Your task to perform on an android device: toggle wifi Image 0: 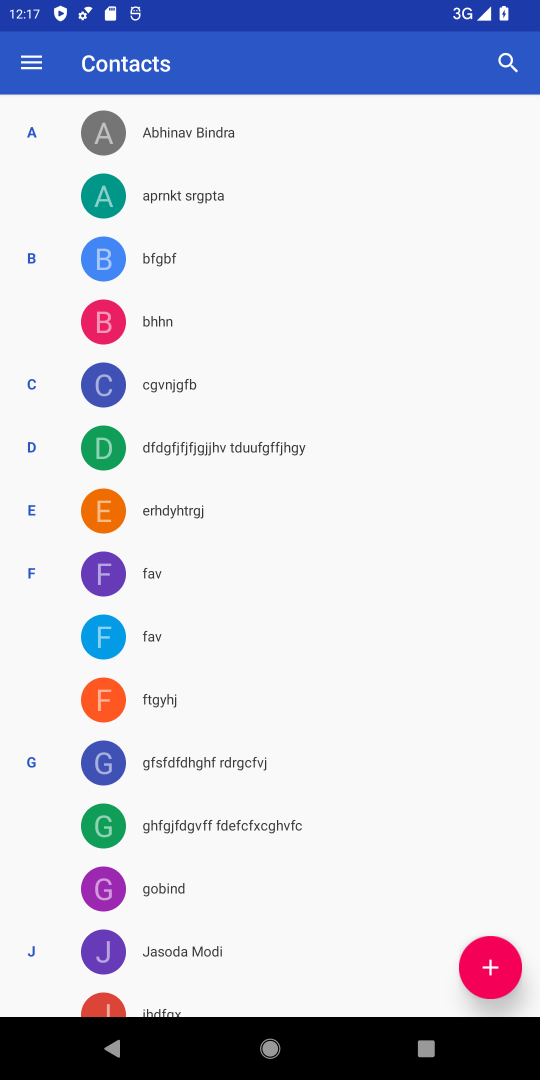
Step 0: drag from (236, 769) to (229, 335)
Your task to perform on an android device: toggle wifi Image 1: 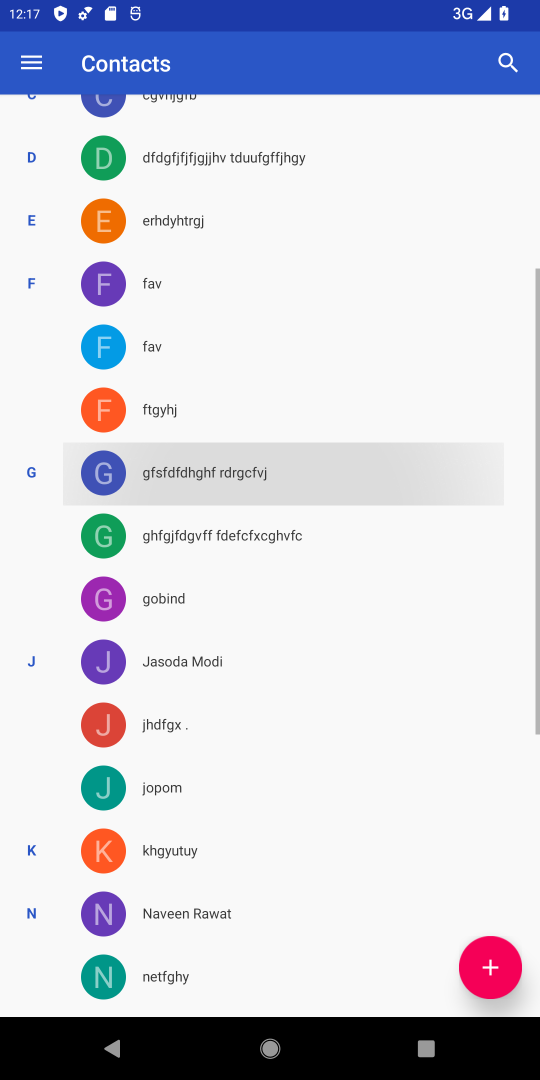
Step 1: drag from (267, 292) to (226, 1000)
Your task to perform on an android device: toggle wifi Image 2: 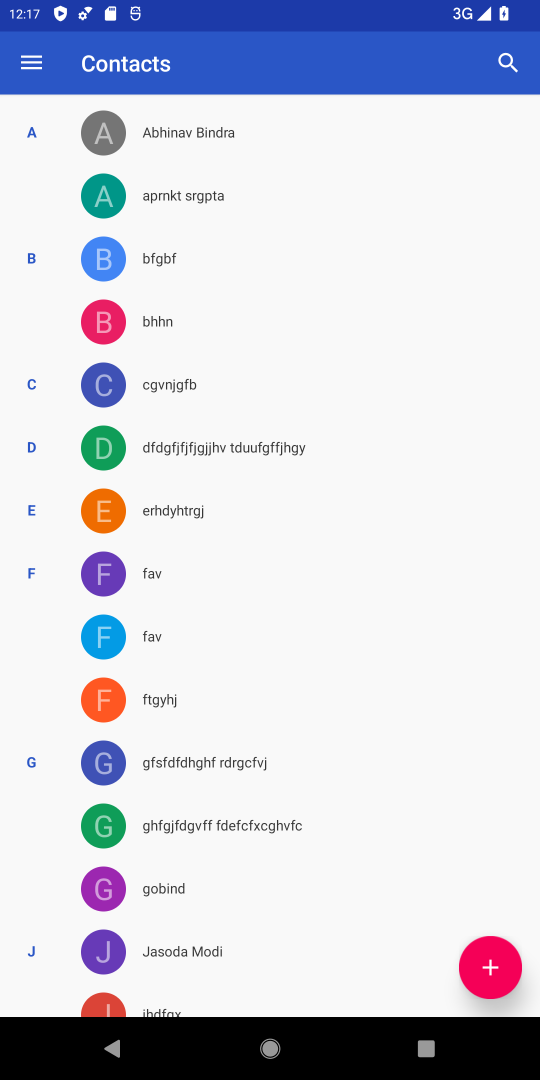
Step 2: drag from (142, 828) to (240, 166)
Your task to perform on an android device: toggle wifi Image 3: 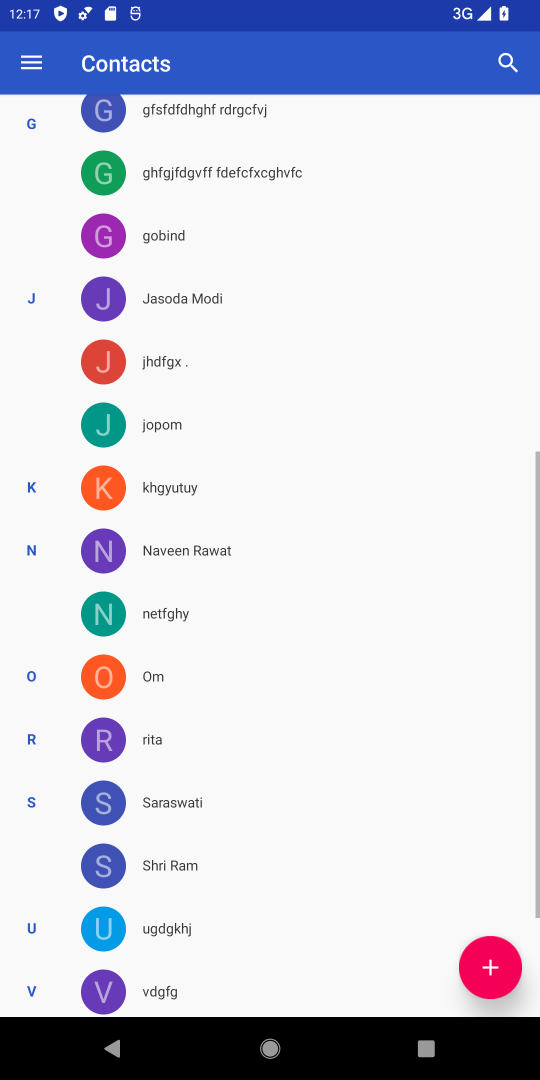
Step 3: drag from (230, 232) to (298, 831)
Your task to perform on an android device: toggle wifi Image 4: 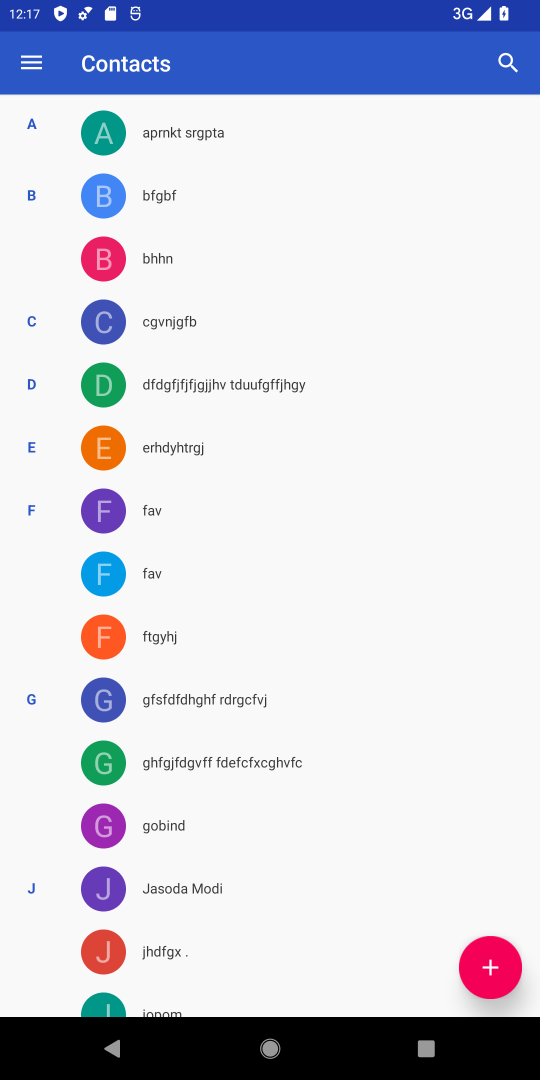
Step 4: drag from (260, 344) to (310, 1070)
Your task to perform on an android device: toggle wifi Image 5: 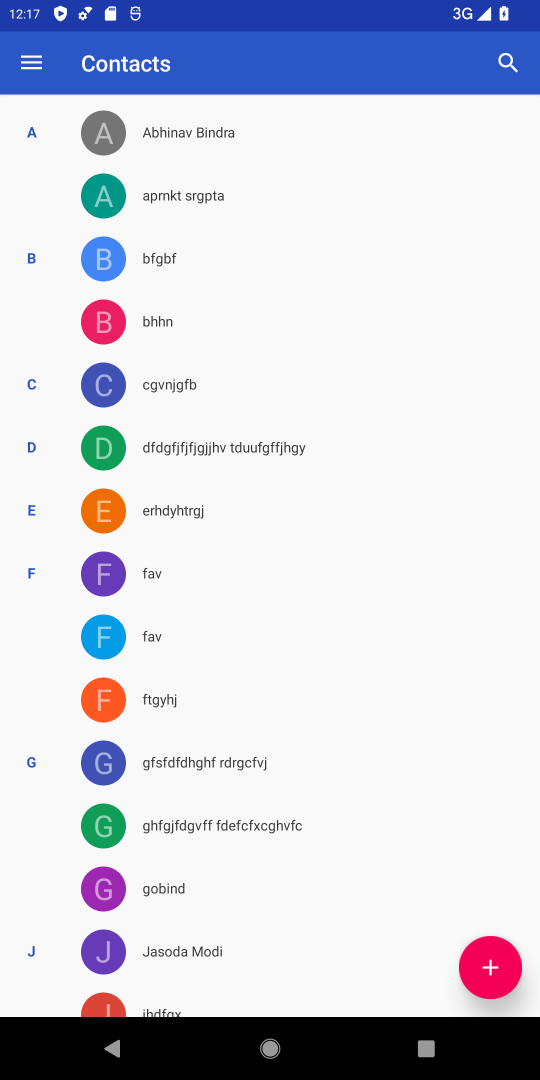
Step 5: drag from (171, 471) to (304, 1078)
Your task to perform on an android device: toggle wifi Image 6: 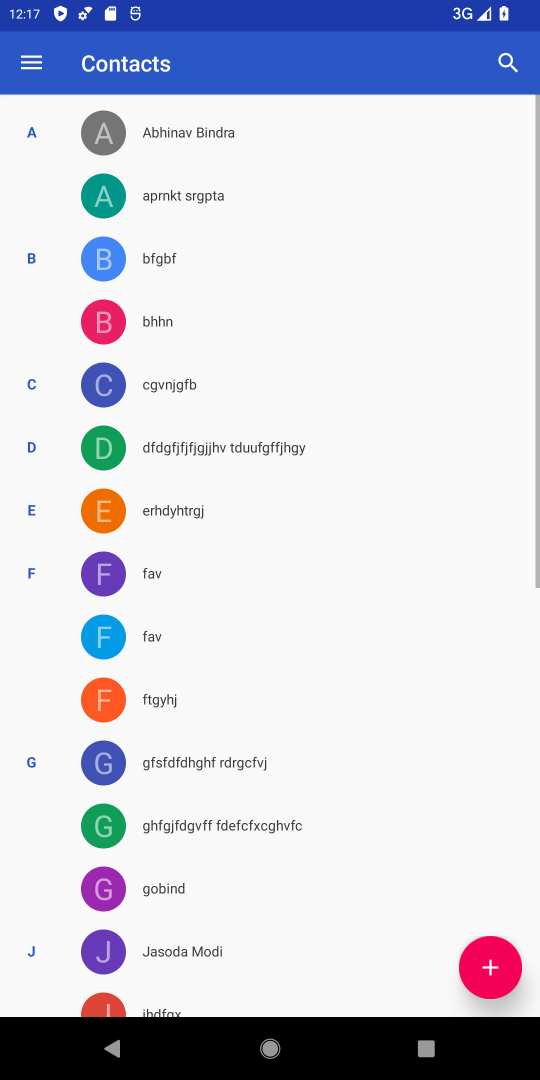
Step 6: drag from (294, 375) to (320, 905)
Your task to perform on an android device: toggle wifi Image 7: 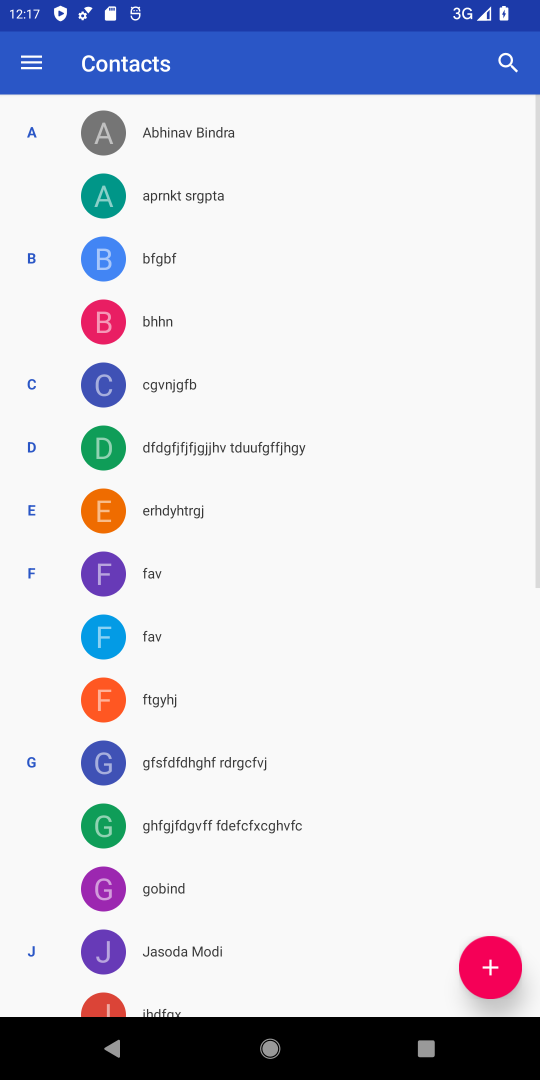
Step 7: press home button
Your task to perform on an android device: toggle wifi Image 8: 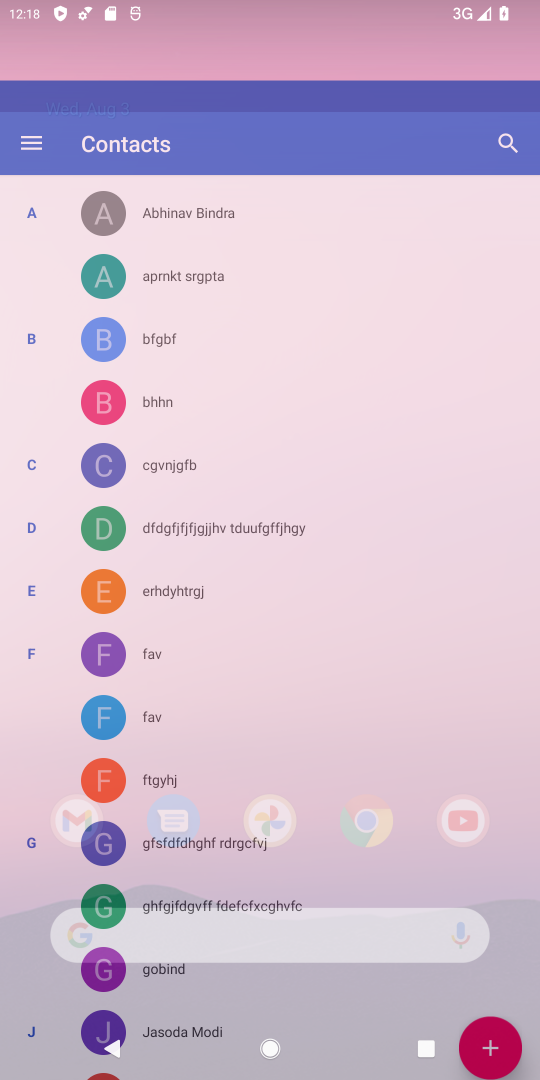
Step 8: drag from (222, 940) to (329, 21)
Your task to perform on an android device: toggle wifi Image 9: 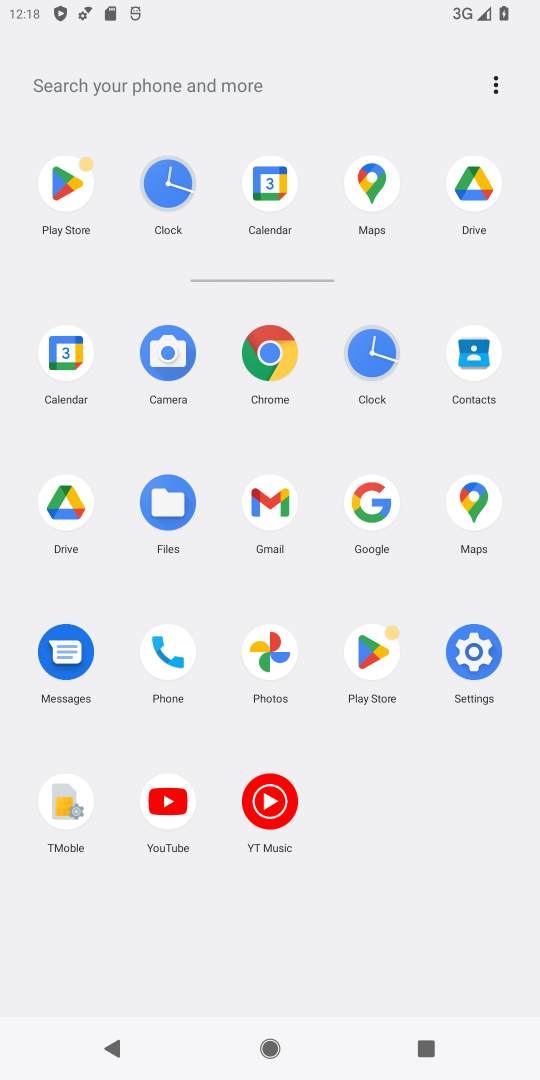
Step 9: click (472, 637)
Your task to perform on an android device: toggle wifi Image 10: 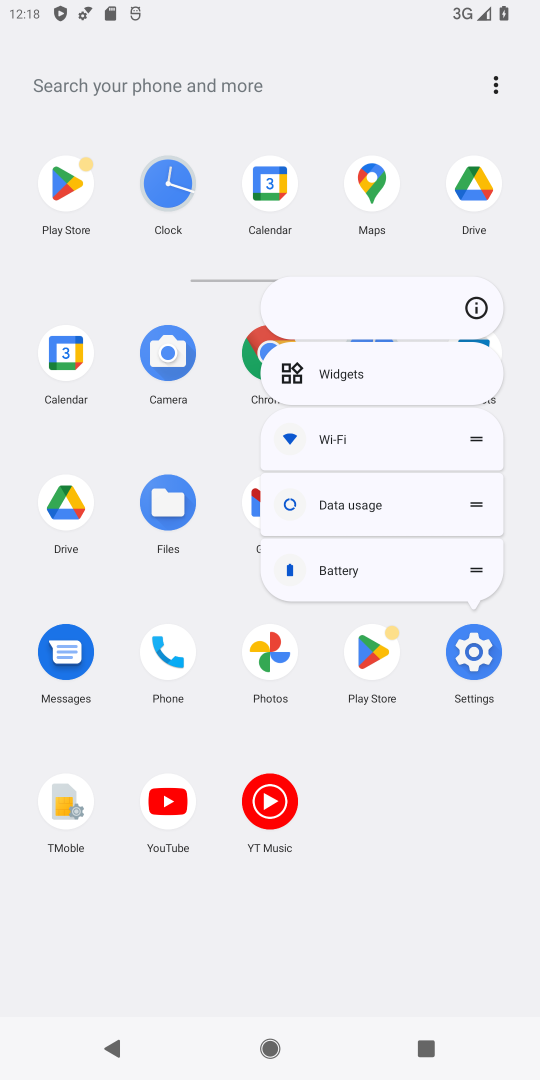
Step 10: click (478, 302)
Your task to perform on an android device: toggle wifi Image 11: 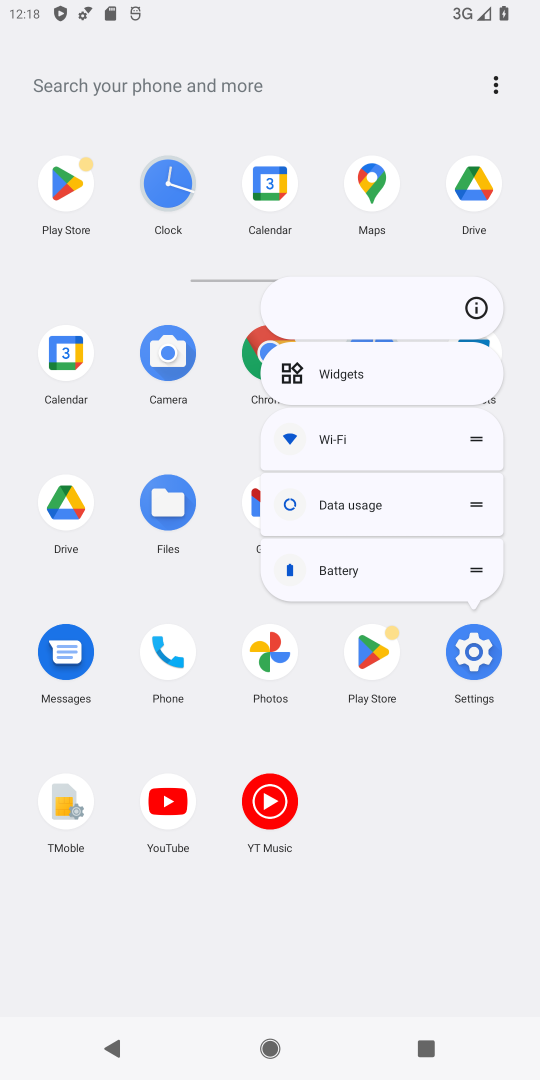
Step 11: click (473, 304)
Your task to perform on an android device: toggle wifi Image 12: 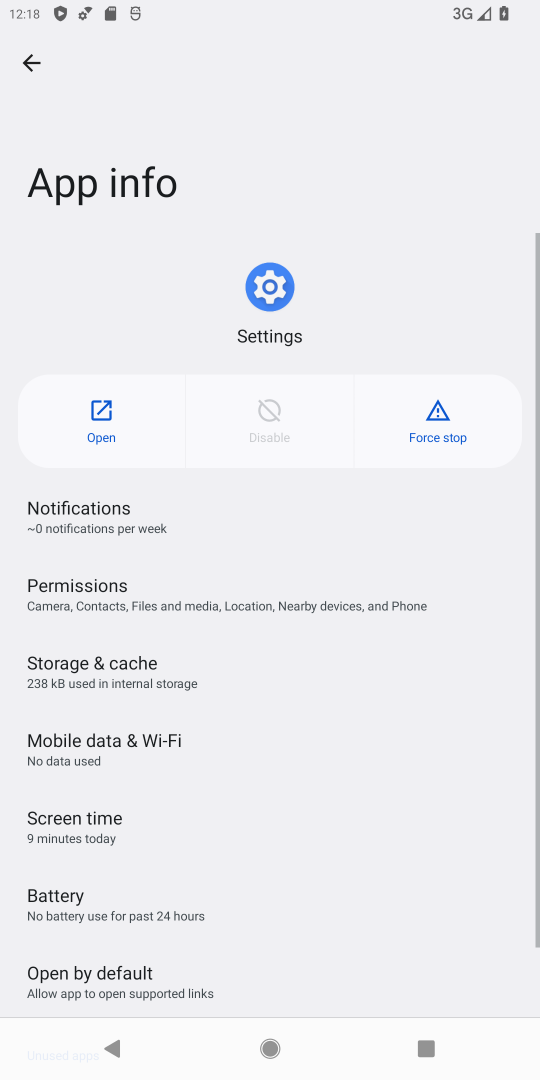
Step 12: click (111, 398)
Your task to perform on an android device: toggle wifi Image 13: 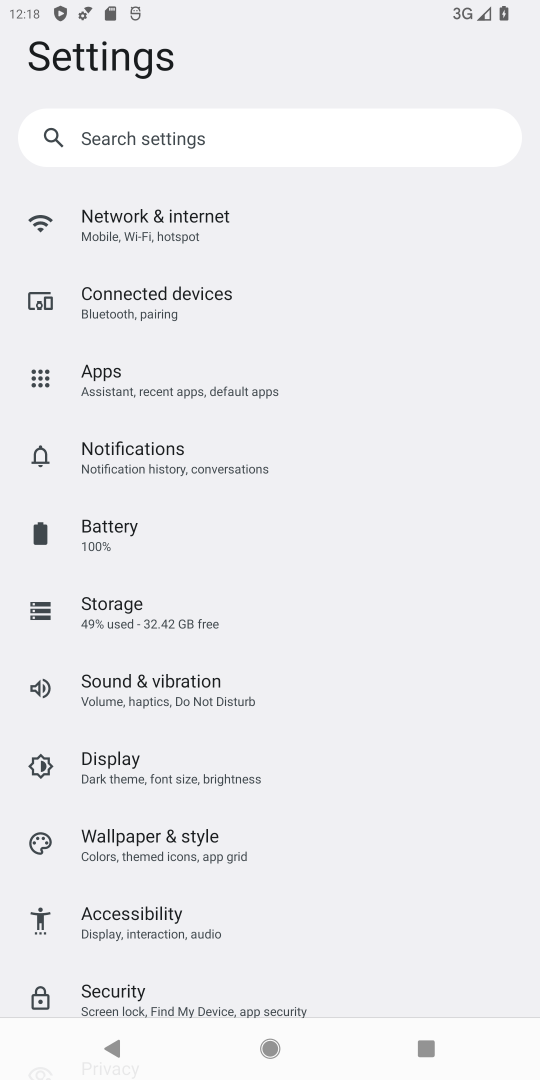
Step 13: drag from (224, 866) to (2, 1078)
Your task to perform on an android device: toggle wifi Image 14: 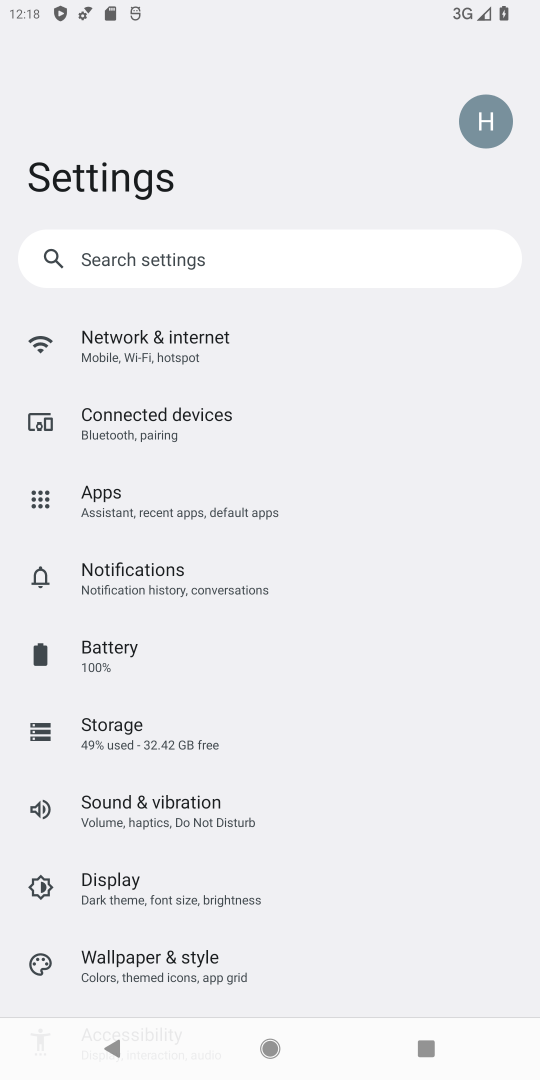
Step 14: click (153, 341)
Your task to perform on an android device: toggle wifi Image 15: 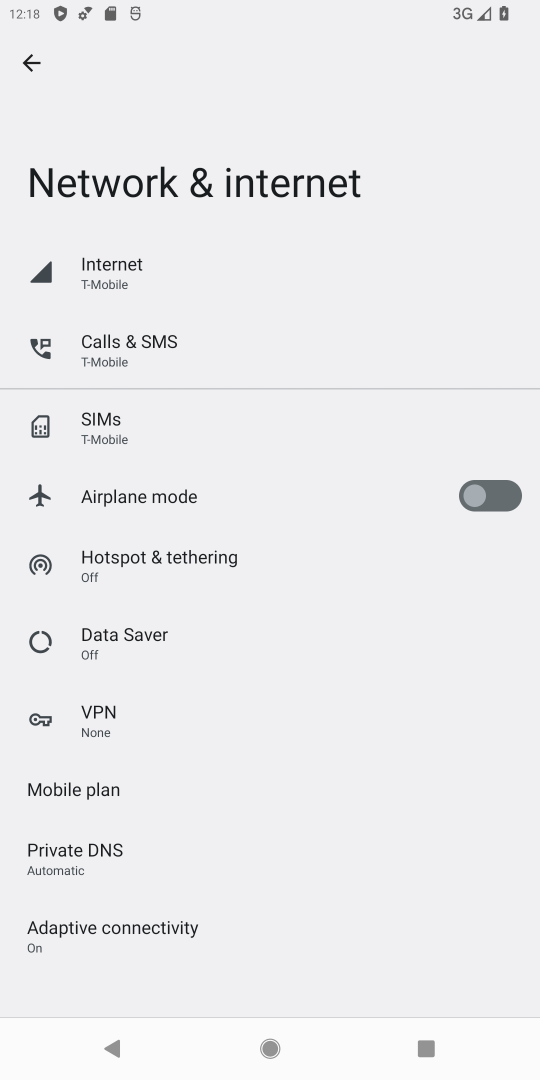
Step 15: click (101, 304)
Your task to perform on an android device: toggle wifi Image 16: 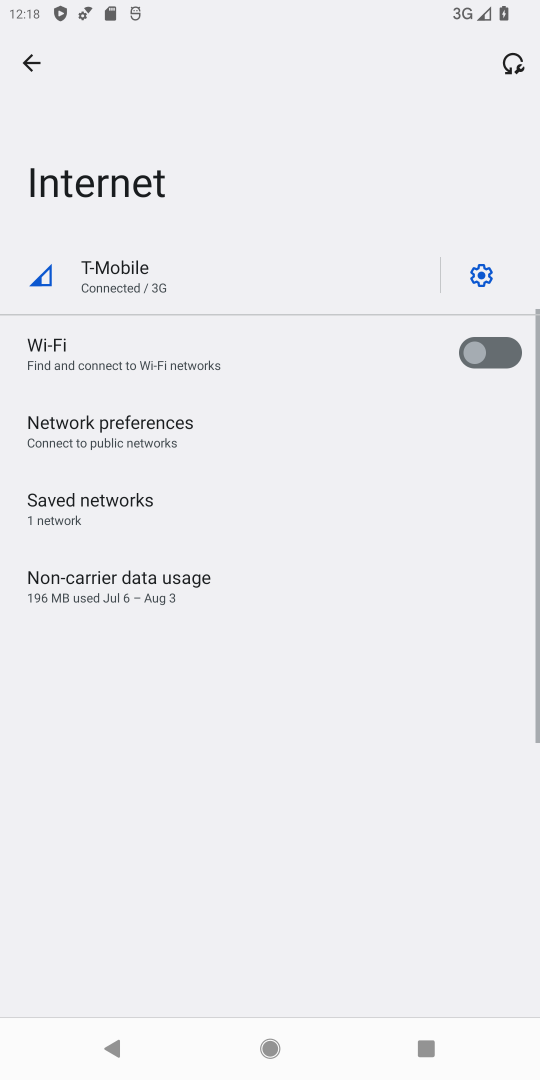
Step 16: click (451, 343)
Your task to perform on an android device: toggle wifi Image 17: 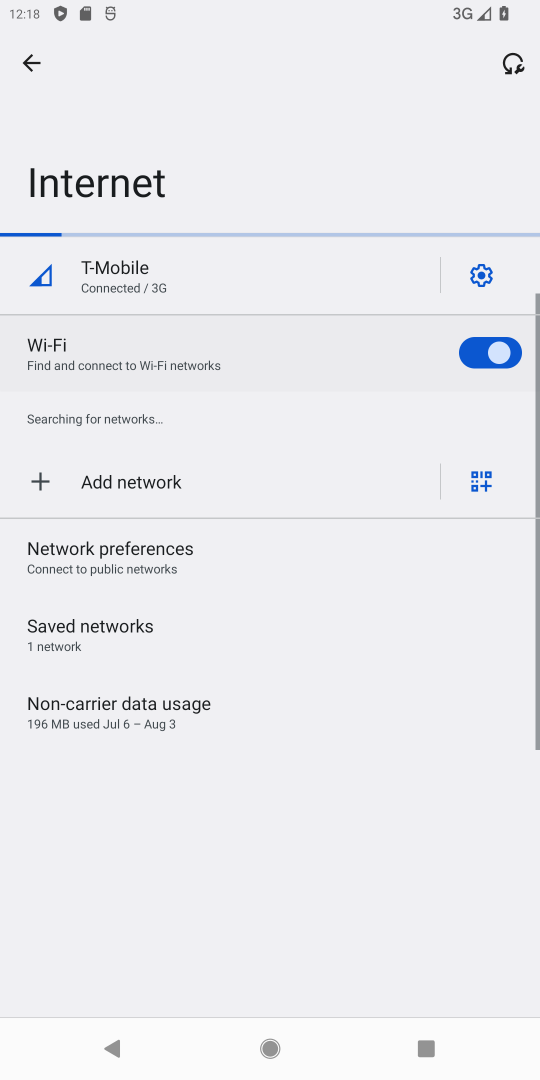
Step 17: task complete